Your task to perform on an android device: Go to Google maps Image 0: 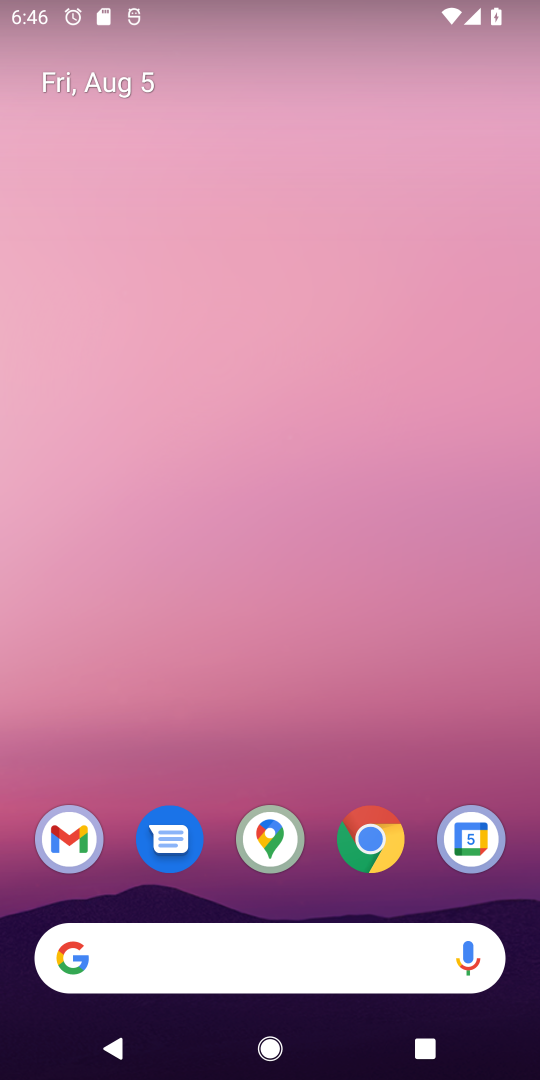
Step 0: click (276, 813)
Your task to perform on an android device: Go to Google maps Image 1: 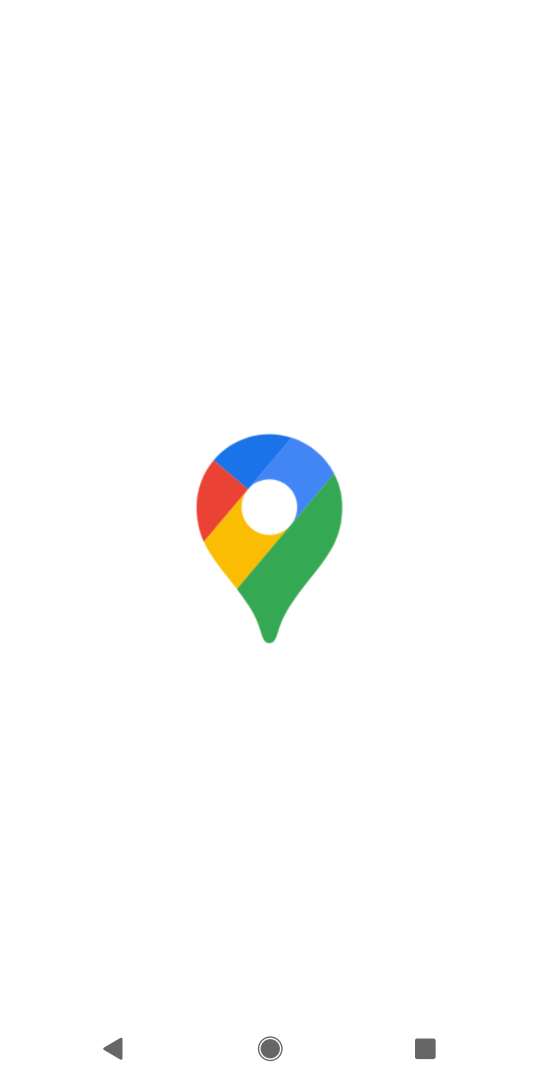
Step 1: task complete